Your task to perform on an android device: Open privacy settings Image 0: 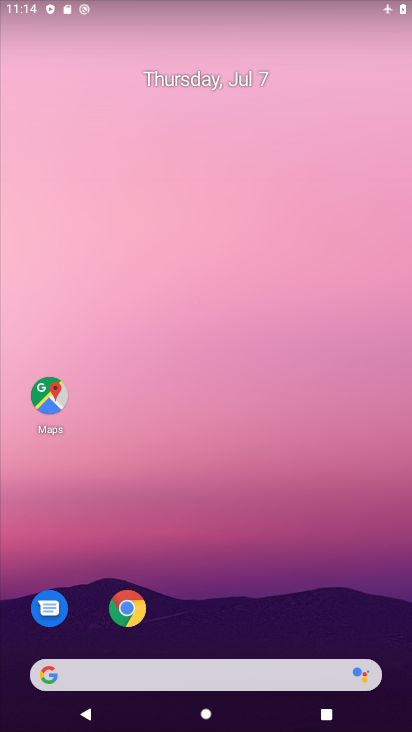
Step 0: drag from (216, 620) to (338, 13)
Your task to perform on an android device: Open privacy settings Image 1: 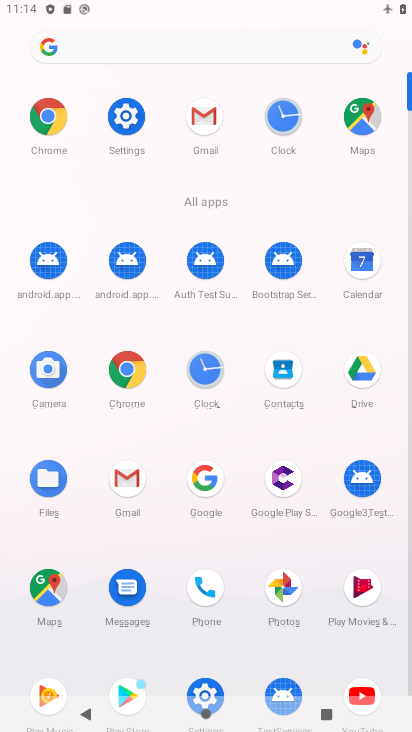
Step 1: click (202, 684)
Your task to perform on an android device: Open privacy settings Image 2: 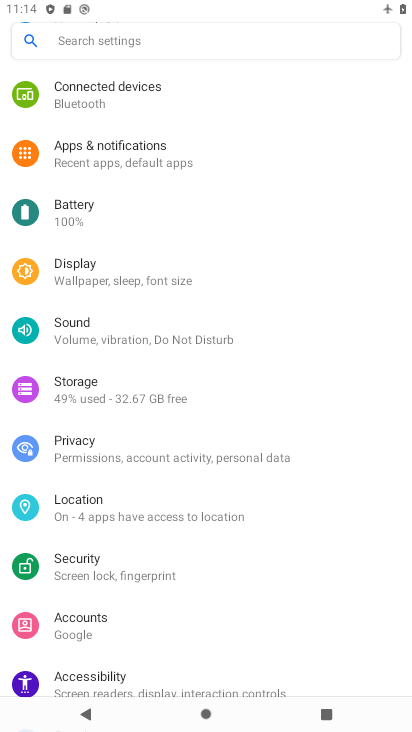
Step 2: click (130, 454)
Your task to perform on an android device: Open privacy settings Image 3: 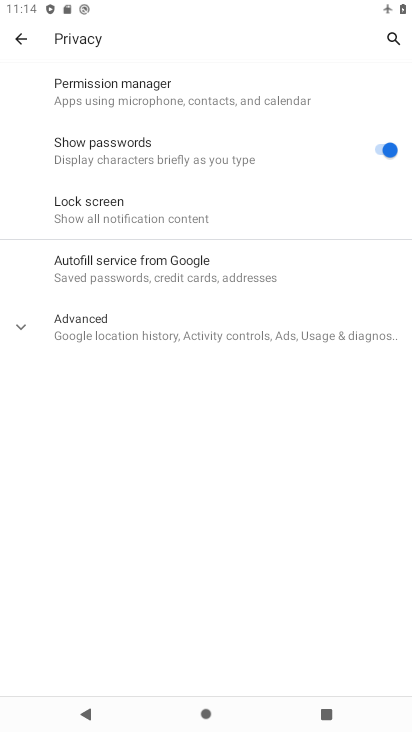
Step 3: task complete